Your task to perform on an android device: read, delete, or share a saved page in the chrome app Image 0: 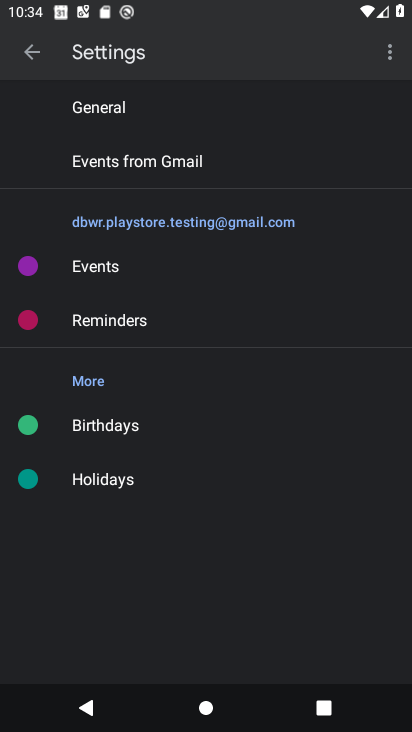
Step 0: press home button
Your task to perform on an android device: read, delete, or share a saved page in the chrome app Image 1: 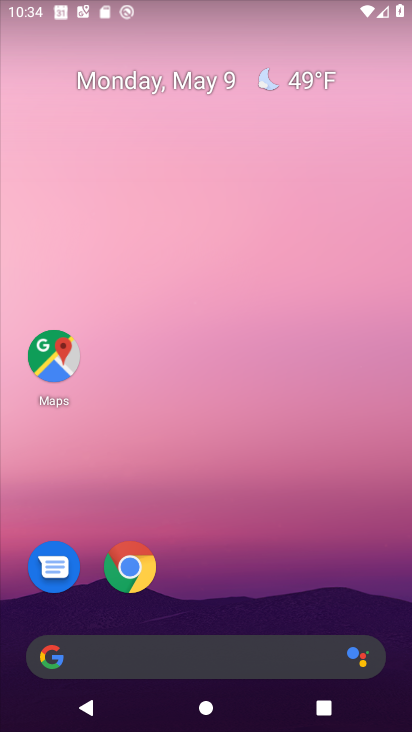
Step 1: click (125, 570)
Your task to perform on an android device: read, delete, or share a saved page in the chrome app Image 2: 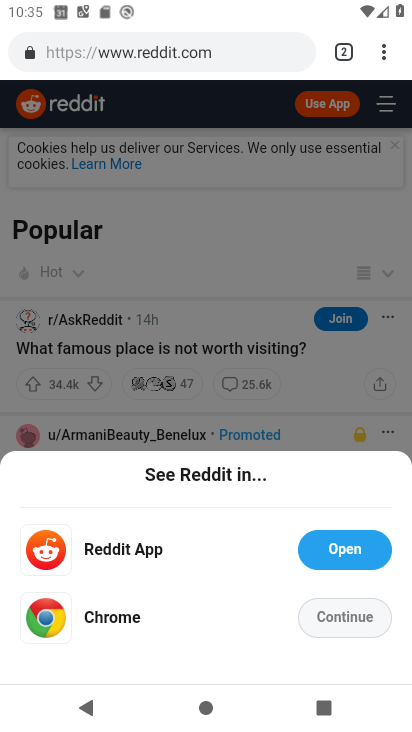
Step 2: click (382, 51)
Your task to perform on an android device: read, delete, or share a saved page in the chrome app Image 3: 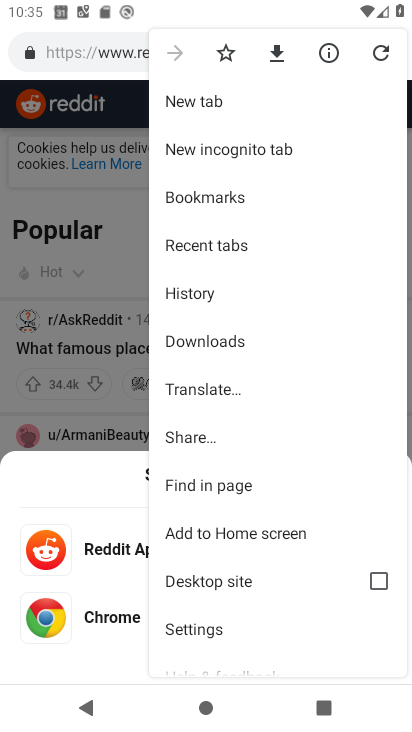
Step 3: click (176, 334)
Your task to perform on an android device: read, delete, or share a saved page in the chrome app Image 4: 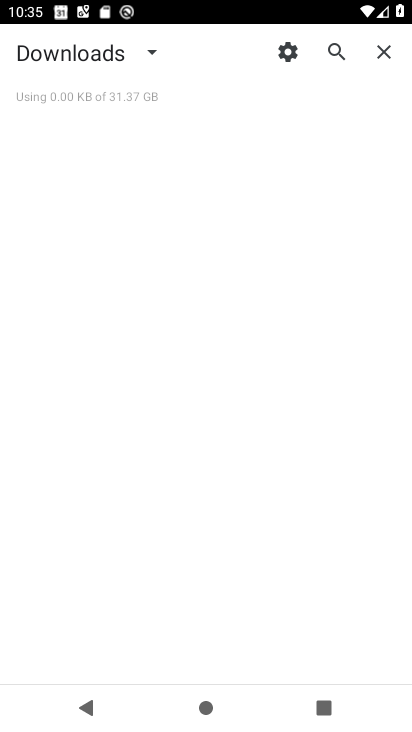
Step 4: click (150, 52)
Your task to perform on an android device: read, delete, or share a saved page in the chrome app Image 5: 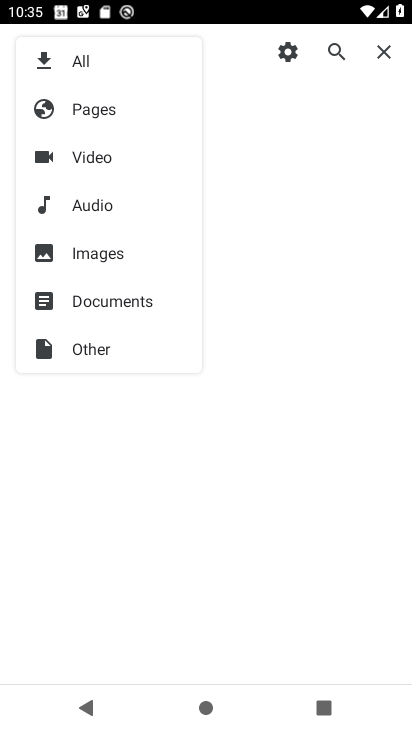
Step 5: click (55, 97)
Your task to perform on an android device: read, delete, or share a saved page in the chrome app Image 6: 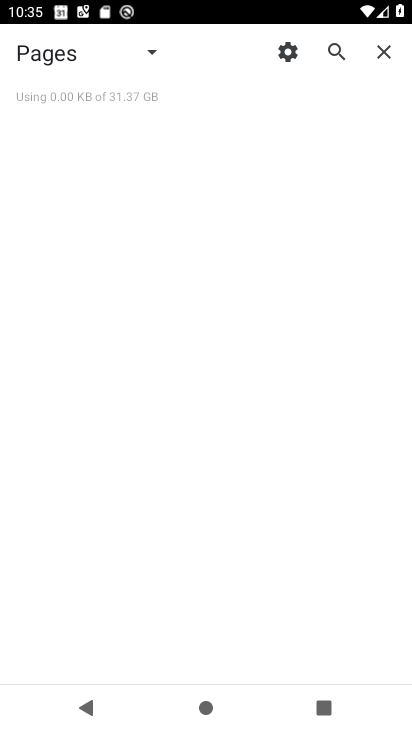
Step 6: task complete